Your task to perform on an android device: open wifi settings Image 0: 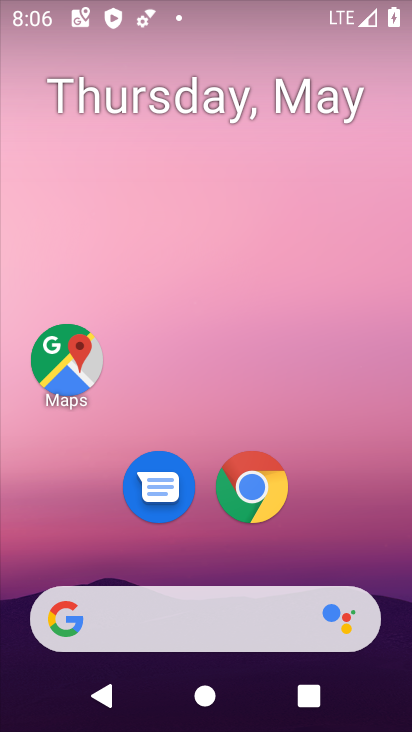
Step 0: drag from (242, 566) to (270, 164)
Your task to perform on an android device: open wifi settings Image 1: 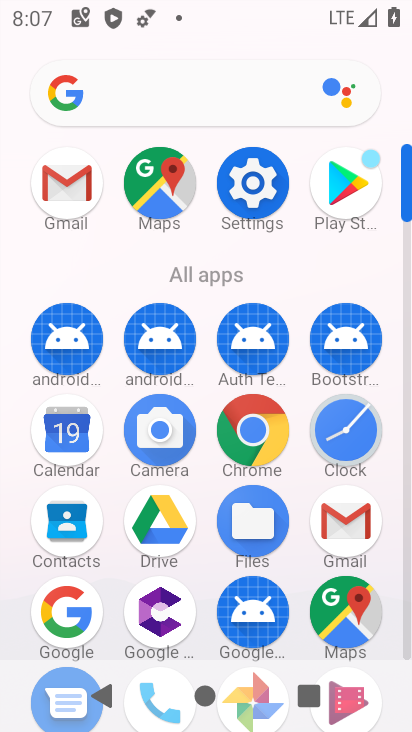
Step 1: click (252, 182)
Your task to perform on an android device: open wifi settings Image 2: 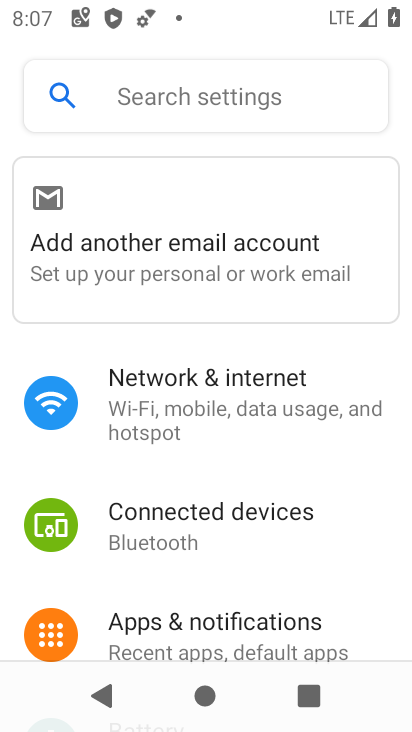
Step 2: drag from (285, 625) to (317, 207)
Your task to perform on an android device: open wifi settings Image 3: 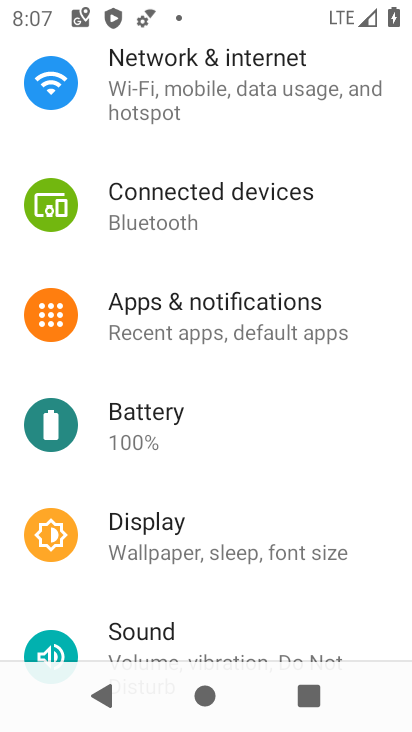
Step 3: drag from (280, 175) to (325, 713)
Your task to perform on an android device: open wifi settings Image 4: 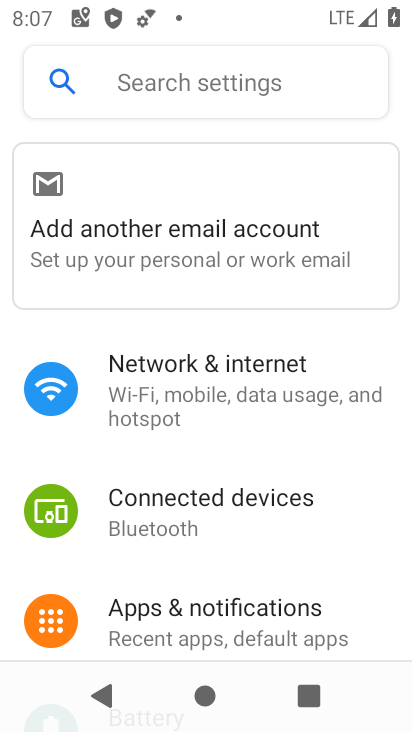
Step 4: click (239, 367)
Your task to perform on an android device: open wifi settings Image 5: 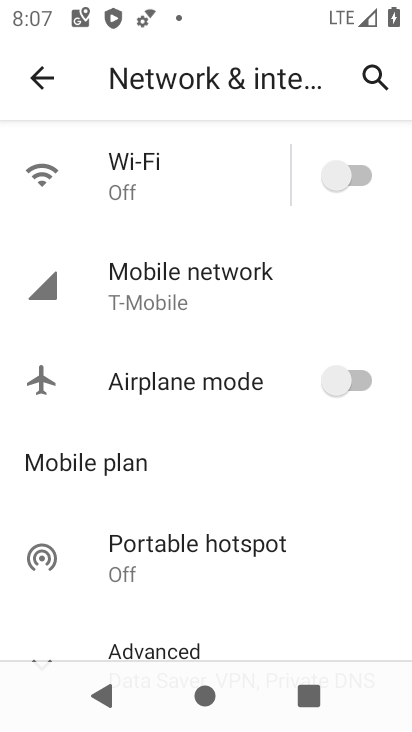
Step 5: drag from (267, 601) to (302, 340)
Your task to perform on an android device: open wifi settings Image 6: 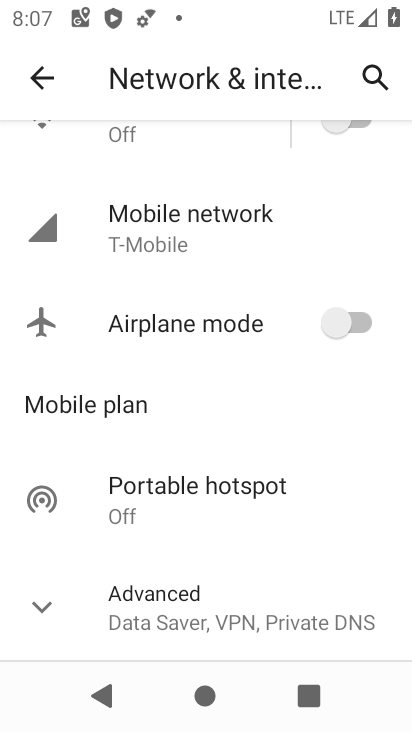
Step 6: drag from (250, 261) to (293, 727)
Your task to perform on an android device: open wifi settings Image 7: 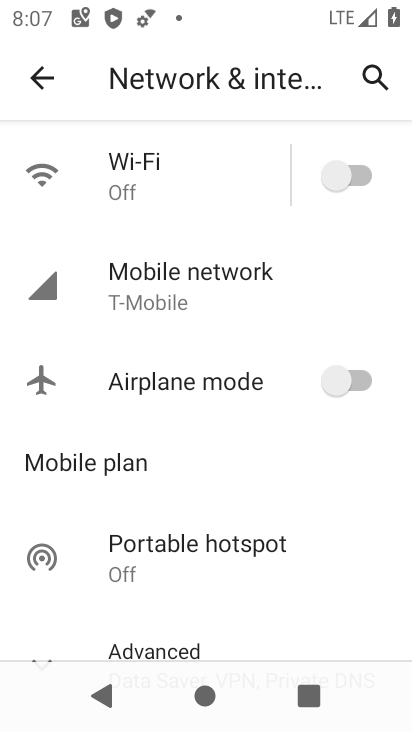
Step 7: click (149, 193)
Your task to perform on an android device: open wifi settings Image 8: 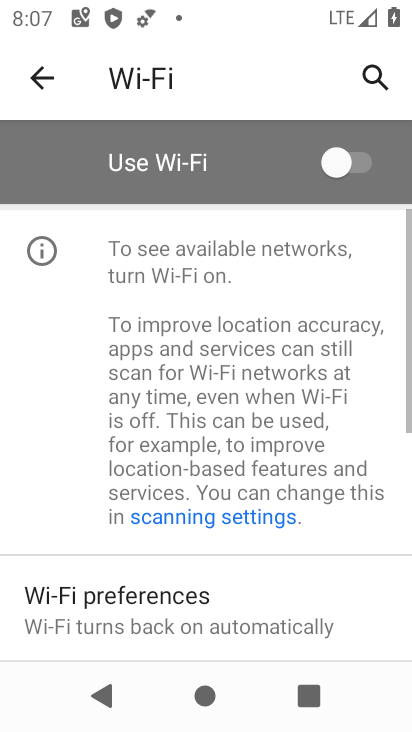
Step 8: task complete